Your task to perform on an android device: uninstall "Google Calendar" Image 0: 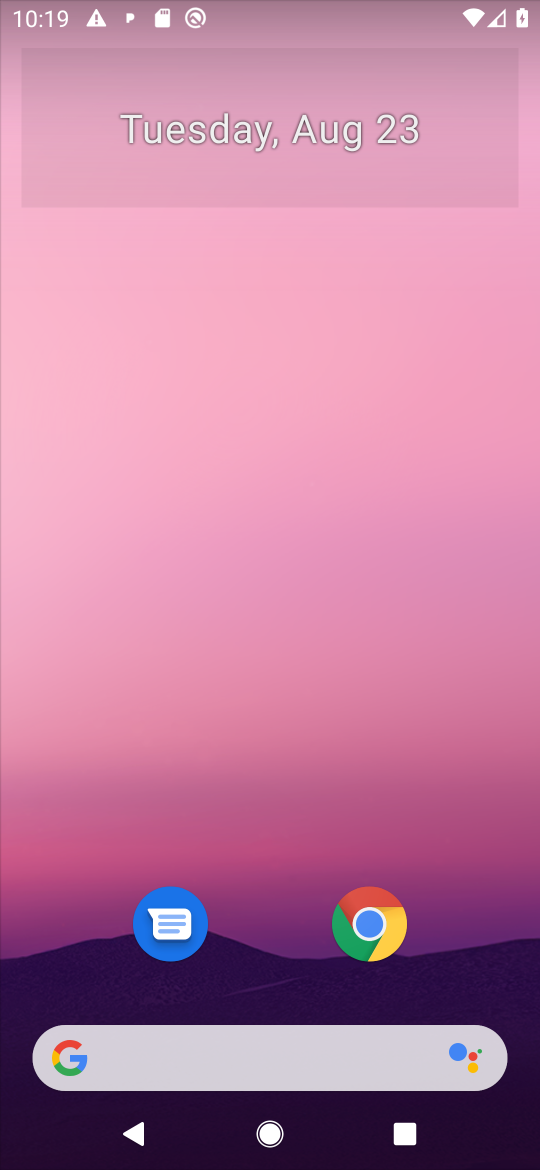
Step 0: press home button
Your task to perform on an android device: uninstall "Google Calendar" Image 1: 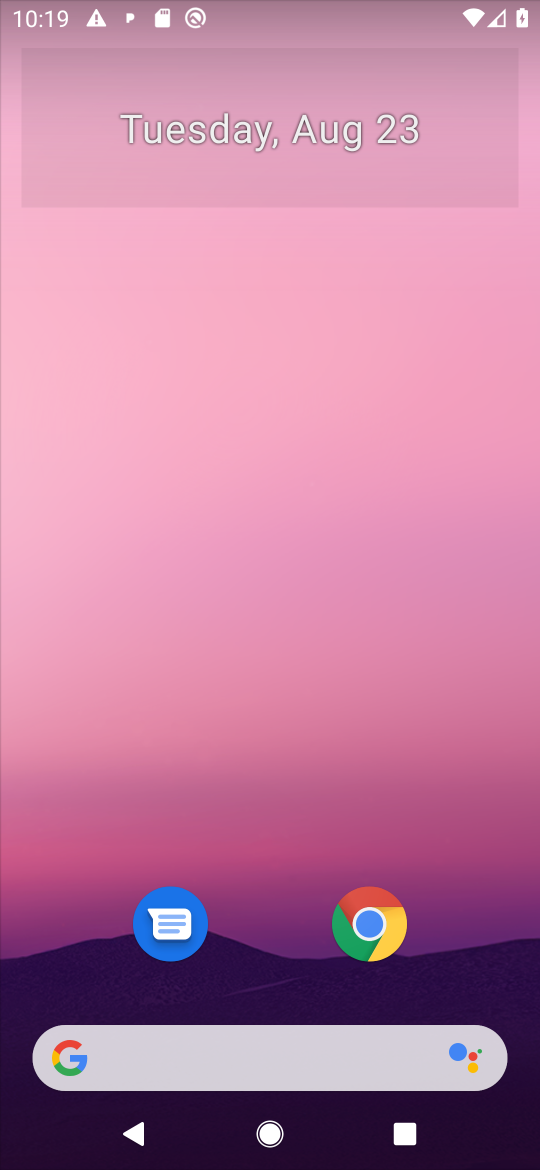
Step 1: drag from (460, 977) to (506, 91)
Your task to perform on an android device: uninstall "Google Calendar" Image 2: 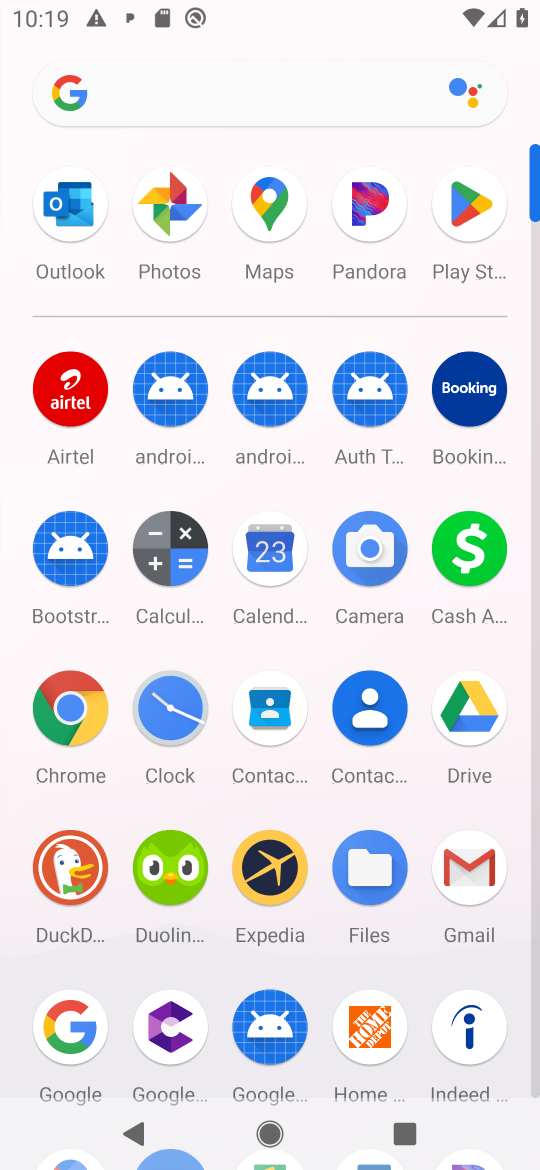
Step 2: click (450, 195)
Your task to perform on an android device: uninstall "Google Calendar" Image 3: 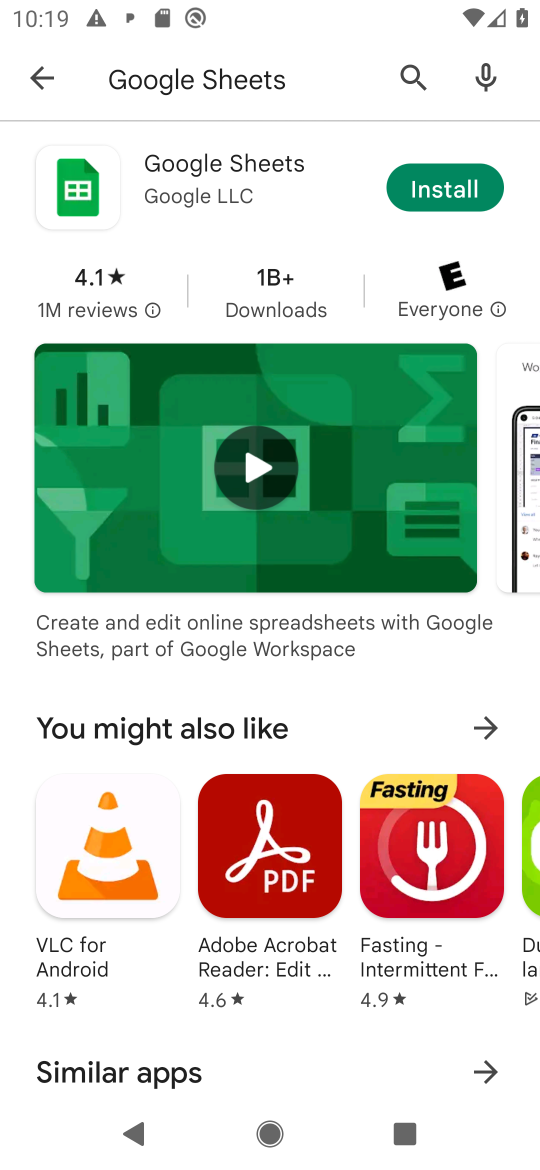
Step 3: press back button
Your task to perform on an android device: uninstall "Google Calendar" Image 4: 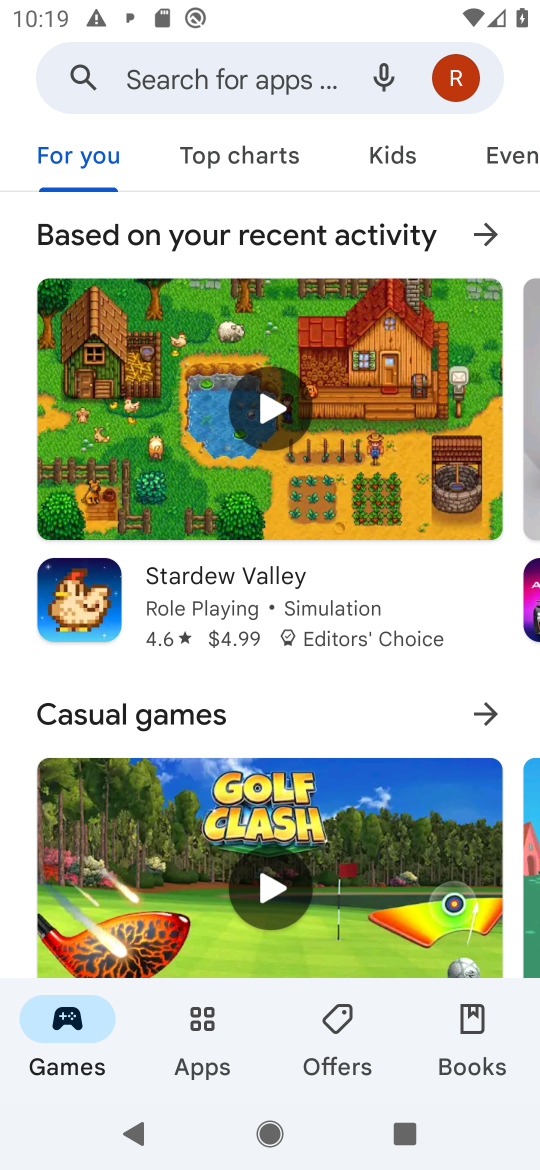
Step 4: click (255, 72)
Your task to perform on an android device: uninstall "Google Calendar" Image 5: 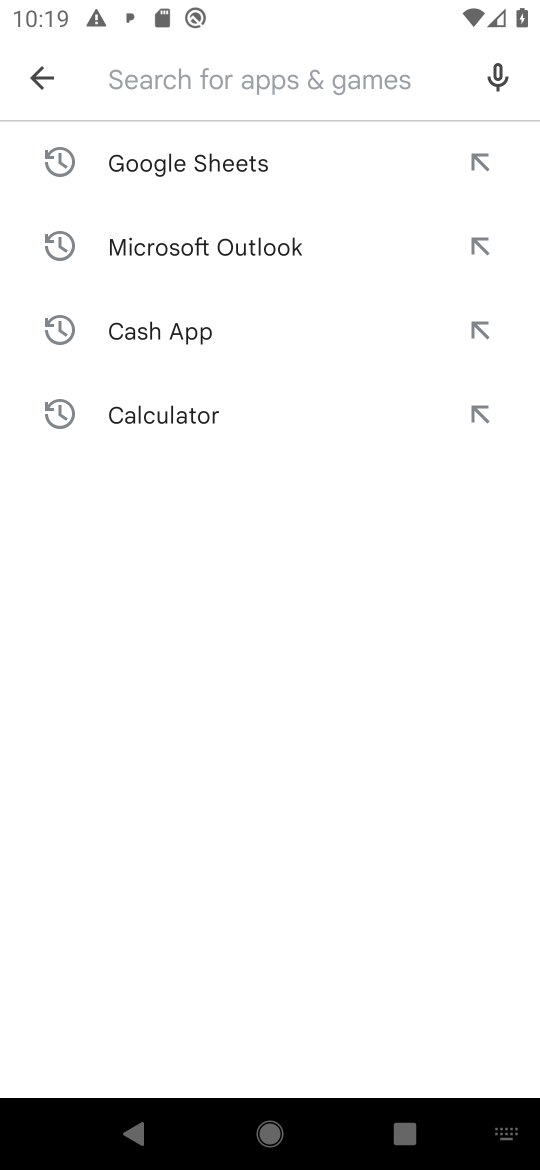
Step 5: type "Google Calendar"
Your task to perform on an android device: uninstall "Google Calendar" Image 6: 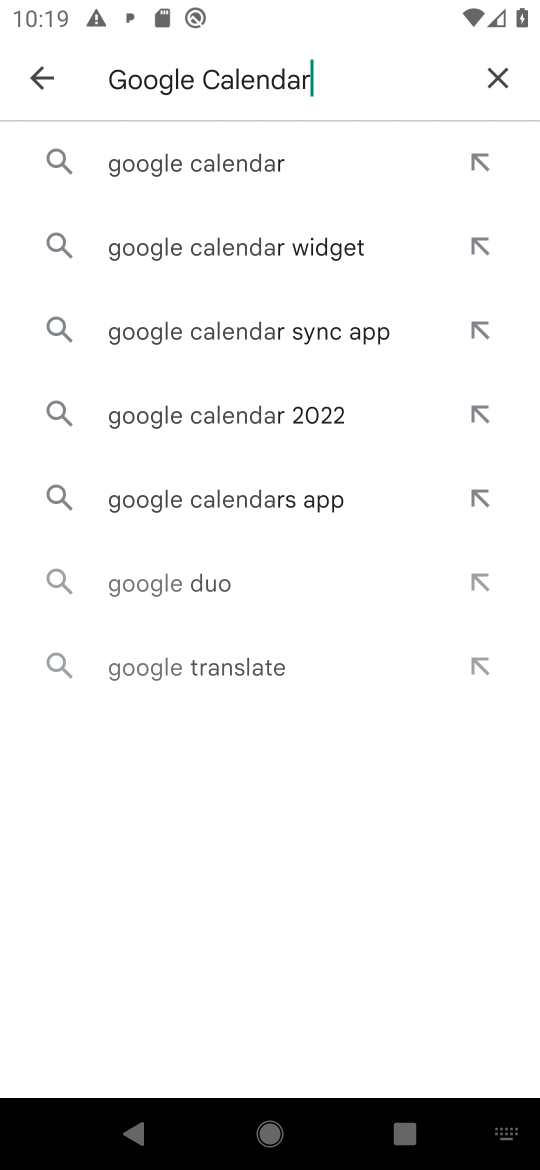
Step 6: press enter
Your task to perform on an android device: uninstall "Google Calendar" Image 7: 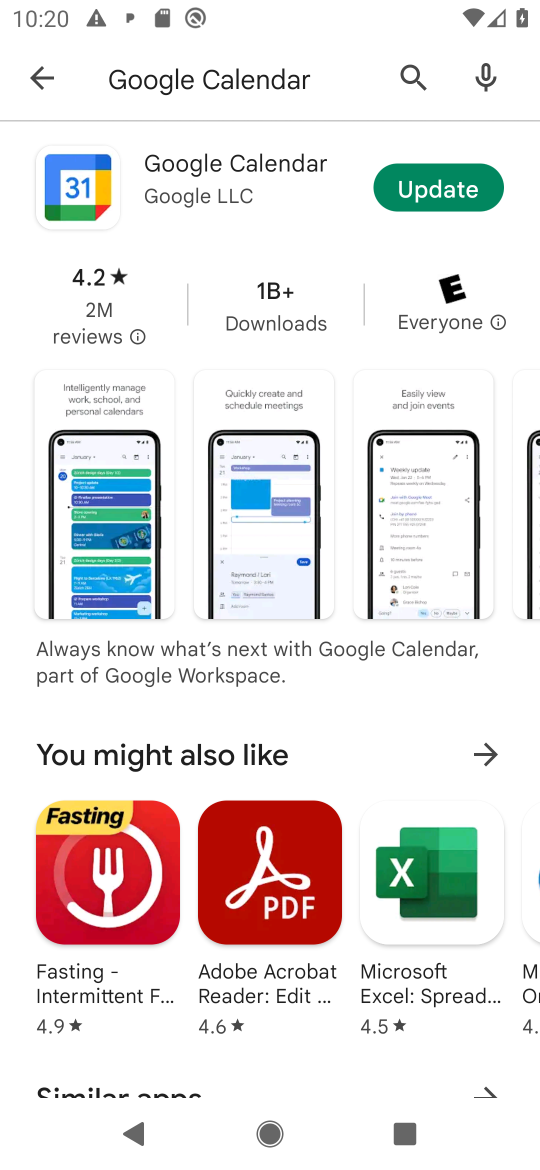
Step 7: task complete